Your task to perform on an android device: Open settings Image 0: 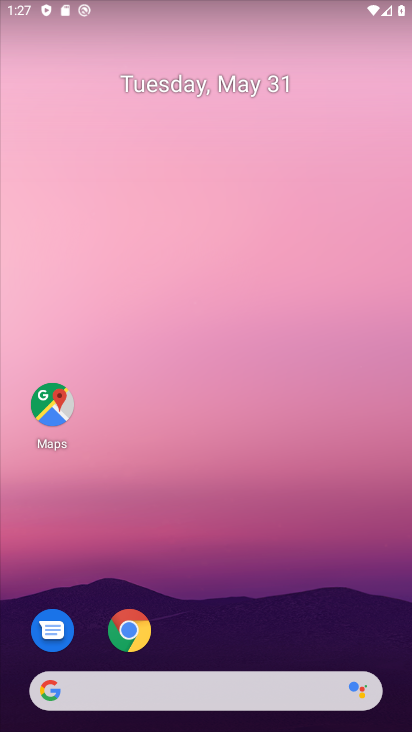
Step 0: drag from (260, 557) to (173, 0)
Your task to perform on an android device: Open settings Image 1: 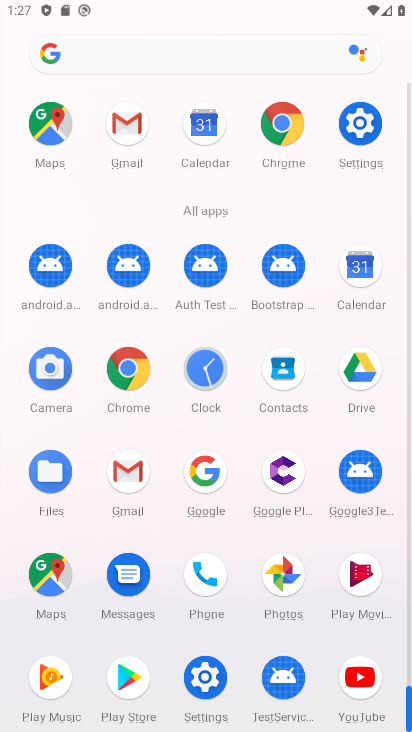
Step 1: drag from (2, 569) to (2, 198)
Your task to perform on an android device: Open settings Image 2: 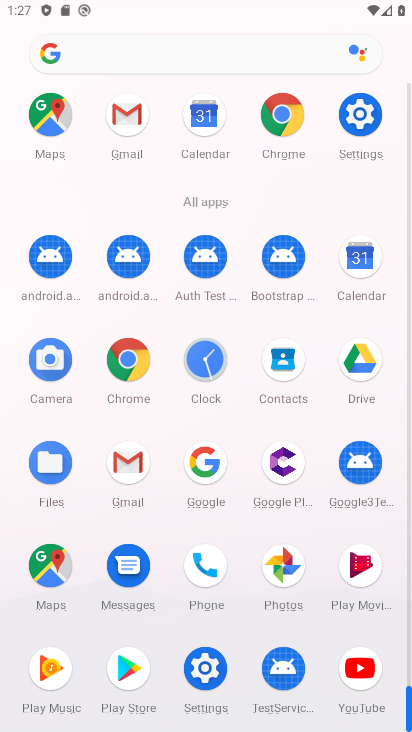
Step 2: click (201, 662)
Your task to perform on an android device: Open settings Image 3: 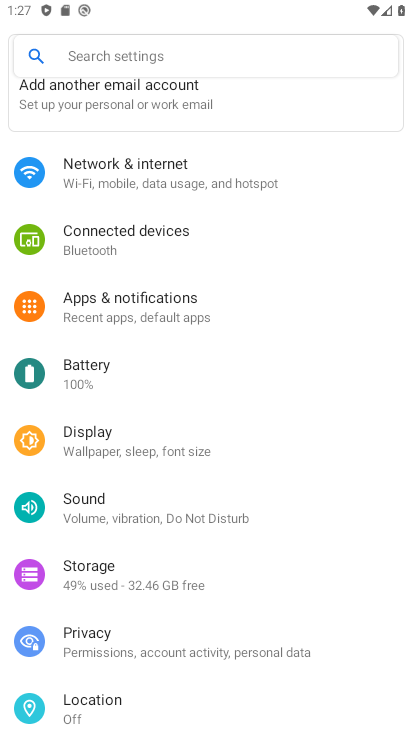
Step 3: task complete